Your task to perform on an android device: Go to Yahoo.com Image 0: 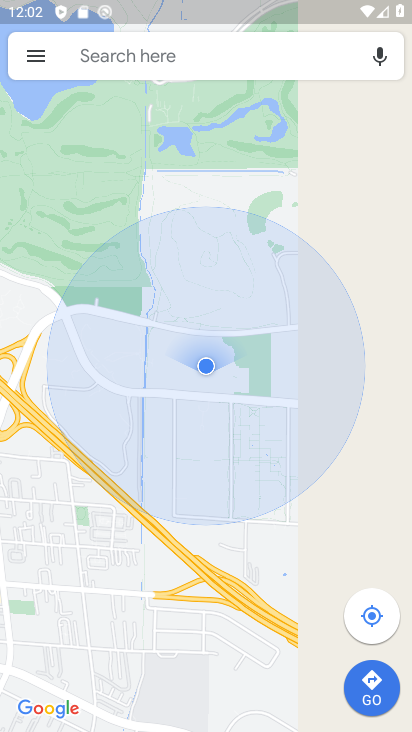
Step 0: press home button
Your task to perform on an android device: Go to Yahoo.com Image 1: 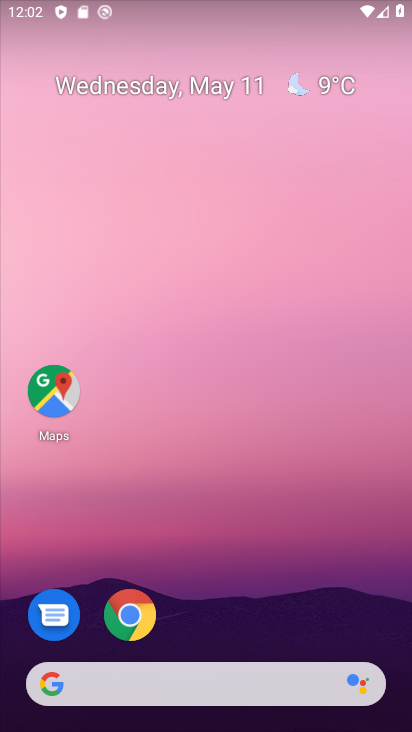
Step 1: click (137, 604)
Your task to perform on an android device: Go to Yahoo.com Image 2: 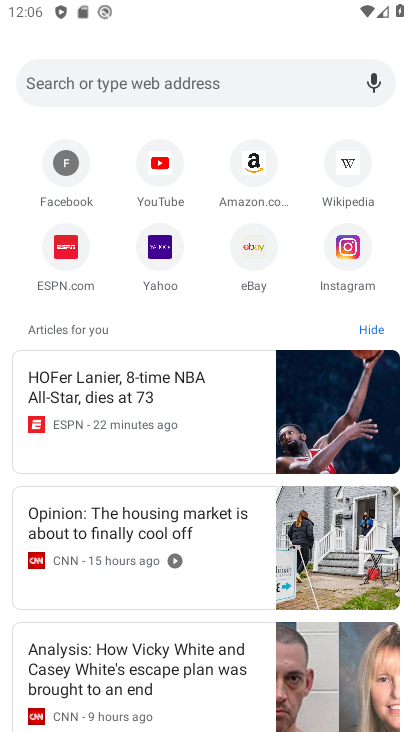
Step 2: click (147, 251)
Your task to perform on an android device: Go to Yahoo.com Image 3: 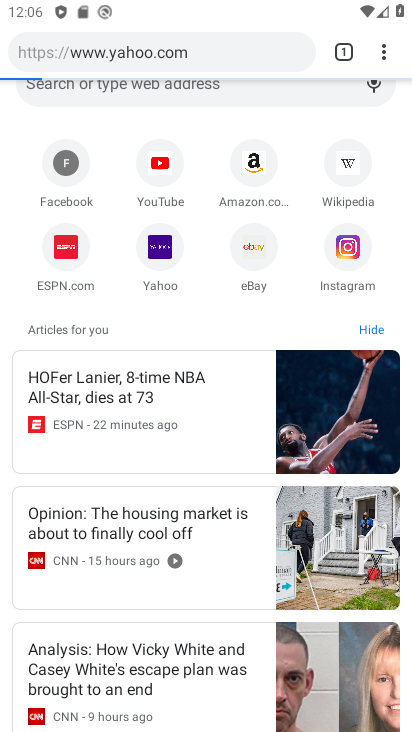
Step 3: task complete